Your task to perform on an android device: What's on my calendar today? Image 0: 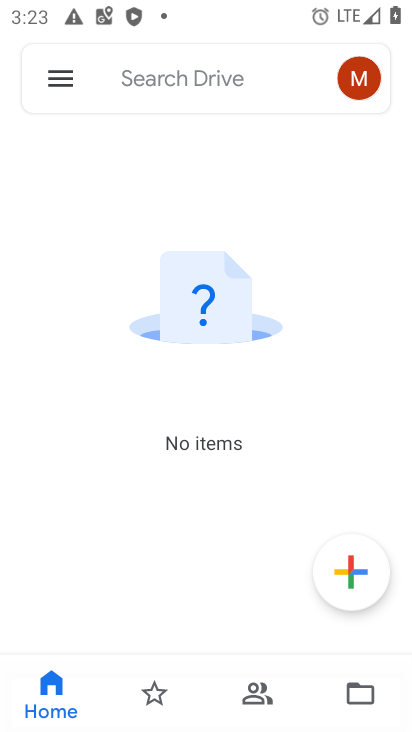
Step 0: press home button
Your task to perform on an android device: What's on my calendar today? Image 1: 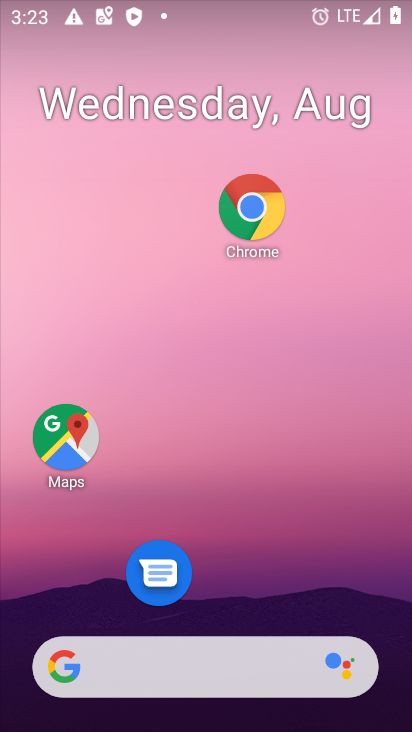
Step 1: drag from (235, 678) to (197, 214)
Your task to perform on an android device: What's on my calendar today? Image 2: 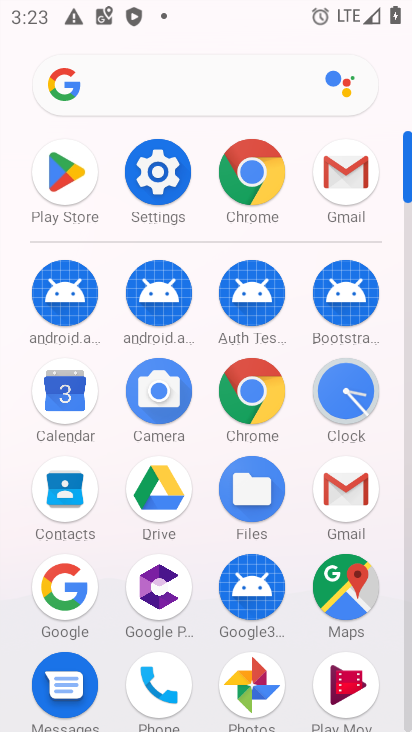
Step 2: click (87, 402)
Your task to perform on an android device: What's on my calendar today? Image 3: 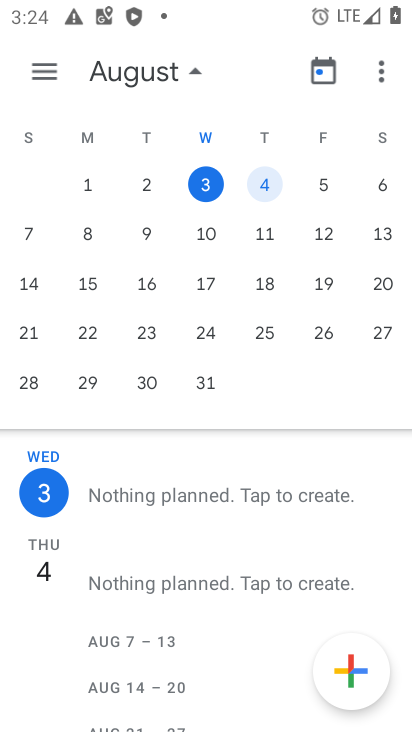
Step 3: click (202, 188)
Your task to perform on an android device: What's on my calendar today? Image 4: 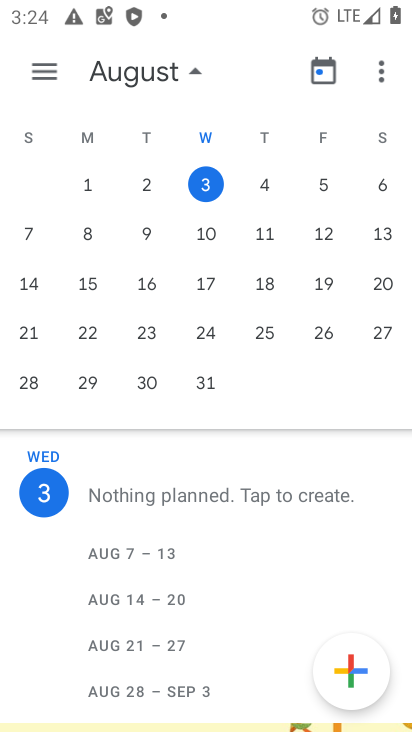
Step 4: task complete